Your task to perform on an android device: Set the phone to "Do not disturb". Image 0: 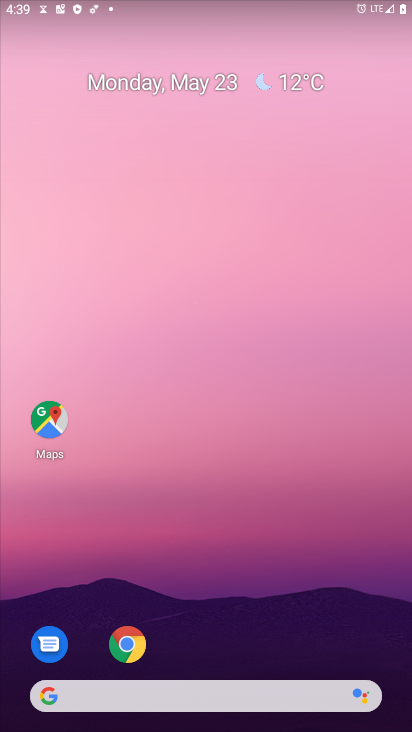
Step 0: drag from (311, 613) to (212, 308)
Your task to perform on an android device: Set the phone to "Do not disturb". Image 1: 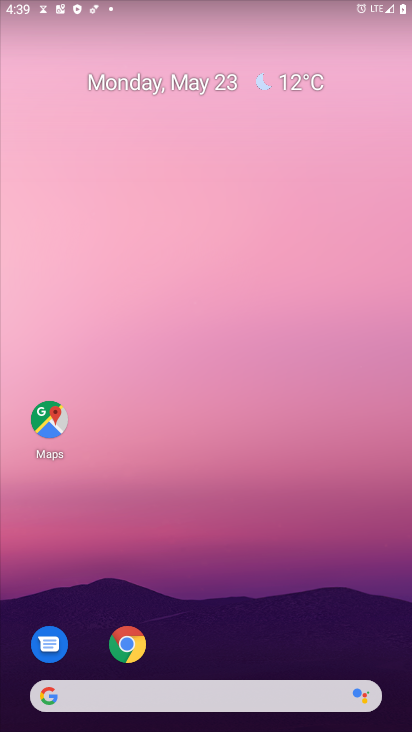
Step 1: drag from (236, 665) to (201, 163)
Your task to perform on an android device: Set the phone to "Do not disturb". Image 2: 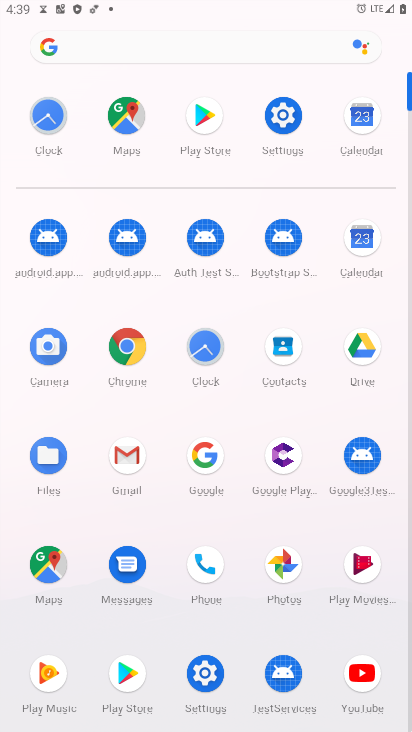
Step 2: click (287, 140)
Your task to perform on an android device: Set the phone to "Do not disturb". Image 3: 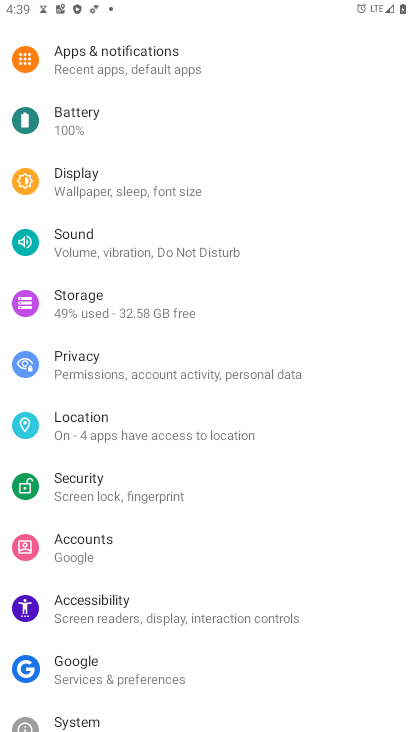
Step 3: click (135, 251)
Your task to perform on an android device: Set the phone to "Do not disturb". Image 4: 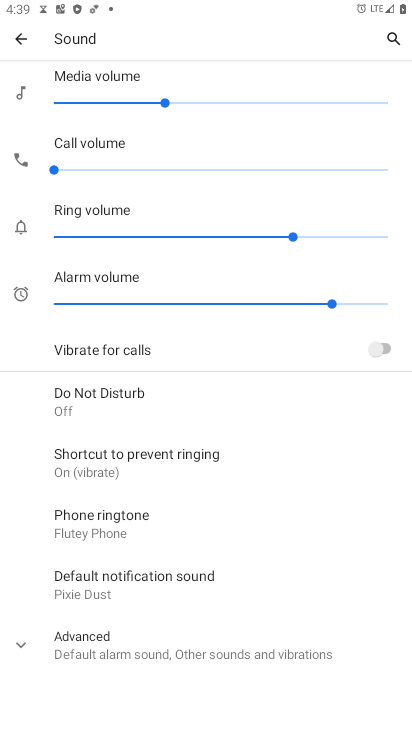
Step 4: drag from (243, 621) to (221, 459)
Your task to perform on an android device: Set the phone to "Do not disturb". Image 5: 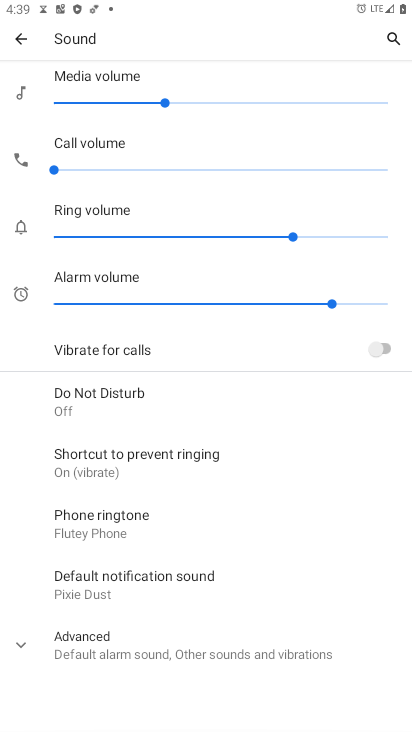
Step 5: click (199, 390)
Your task to perform on an android device: Set the phone to "Do not disturb". Image 6: 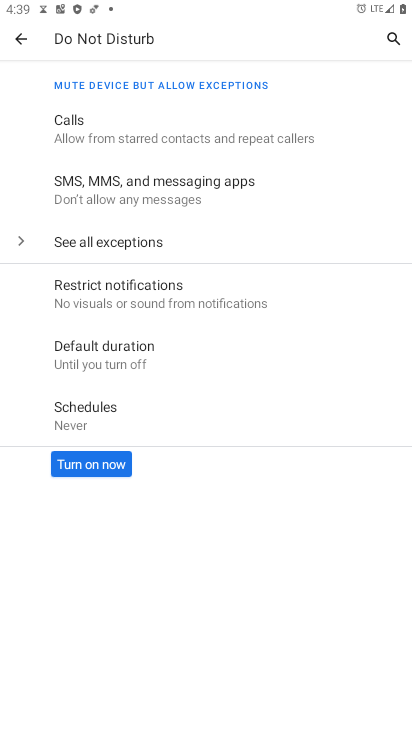
Step 6: click (111, 458)
Your task to perform on an android device: Set the phone to "Do not disturb". Image 7: 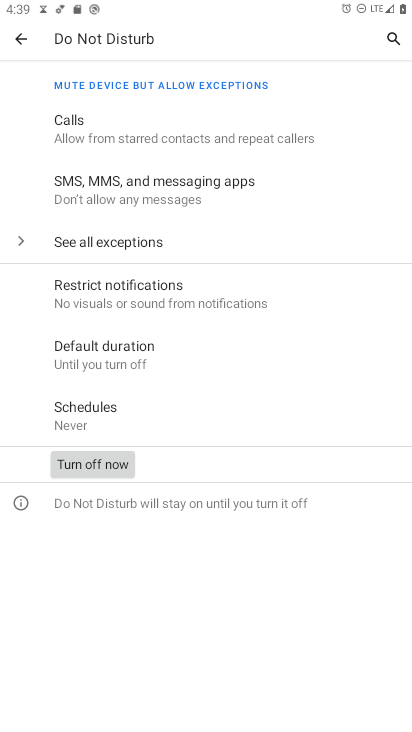
Step 7: task complete